Your task to perform on an android device: turn on improve location accuracy Image 0: 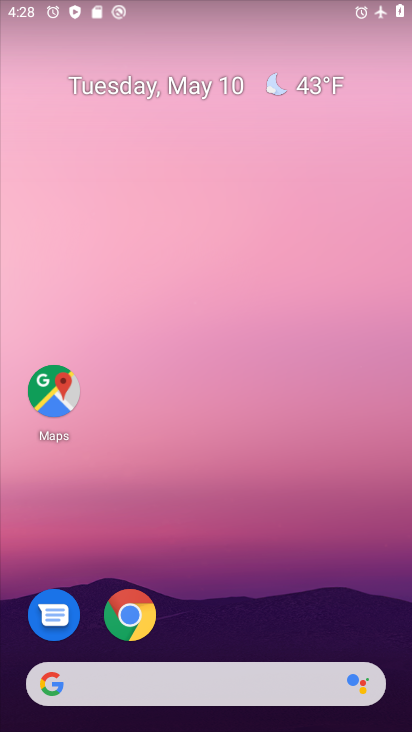
Step 0: drag from (243, 552) to (197, 23)
Your task to perform on an android device: turn on improve location accuracy Image 1: 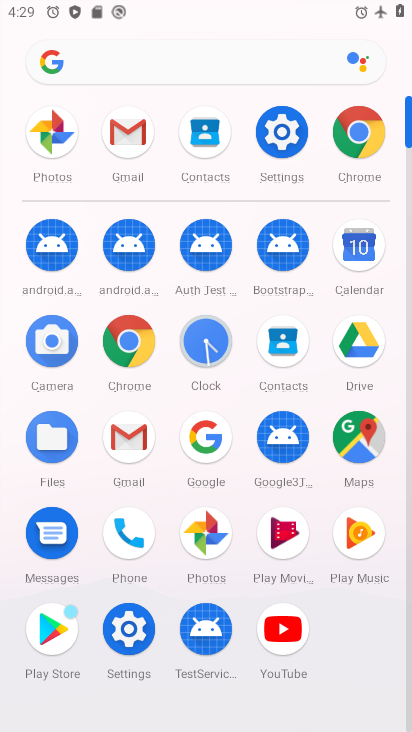
Step 1: click (127, 624)
Your task to perform on an android device: turn on improve location accuracy Image 2: 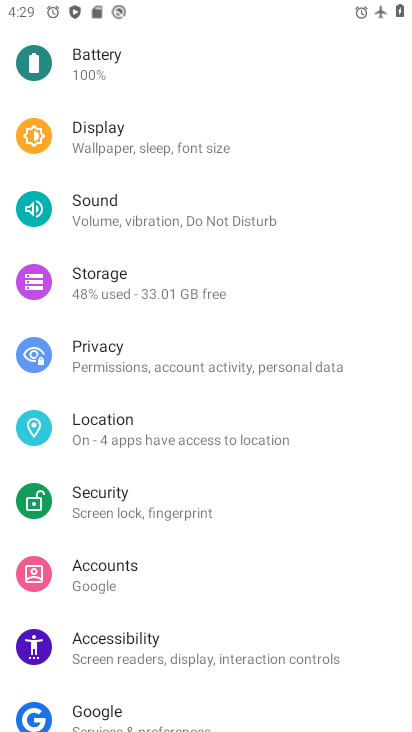
Step 2: drag from (230, 530) to (264, 97)
Your task to perform on an android device: turn on improve location accuracy Image 3: 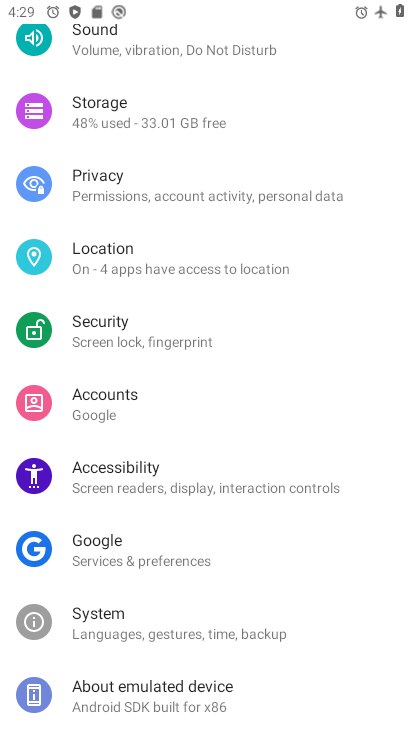
Step 3: click (171, 260)
Your task to perform on an android device: turn on improve location accuracy Image 4: 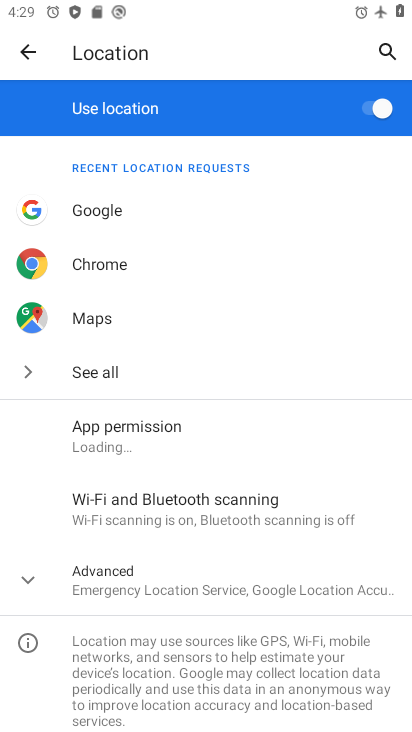
Step 4: click (48, 569)
Your task to perform on an android device: turn on improve location accuracy Image 5: 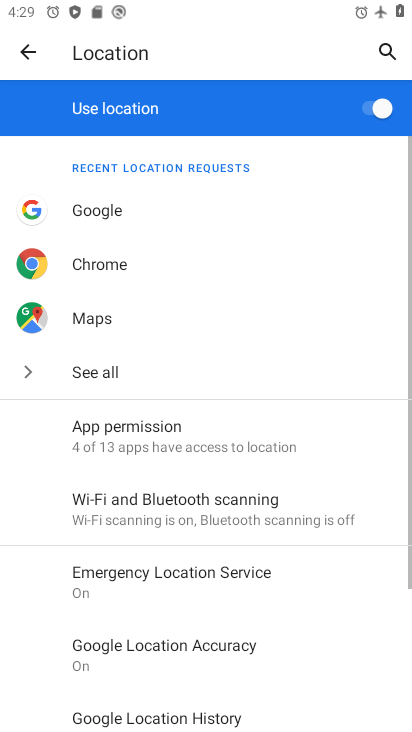
Step 5: drag from (259, 613) to (295, 241)
Your task to perform on an android device: turn on improve location accuracy Image 6: 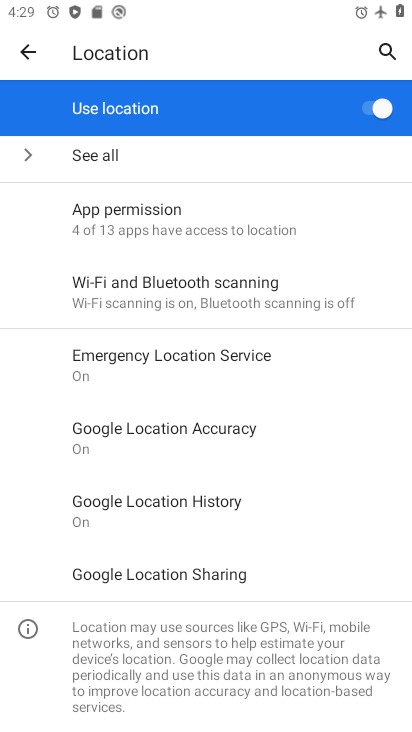
Step 6: click (175, 438)
Your task to perform on an android device: turn on improve location accuracy Image 7: 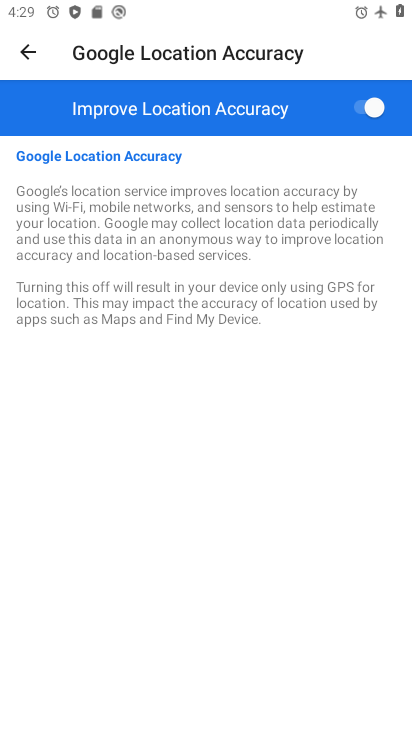
Step 7: task complete